Your task to perform on an android device: Go to settings Image 0: 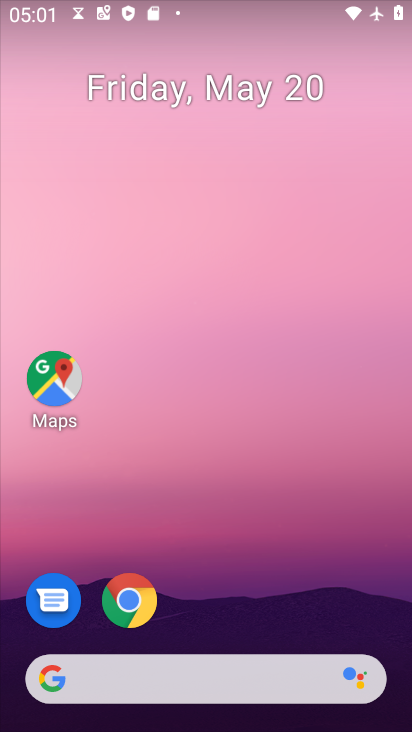
Step 0: drag from (221, 522) to (202, 56)
Your task to perform on an android device: Go to settings Image 1: 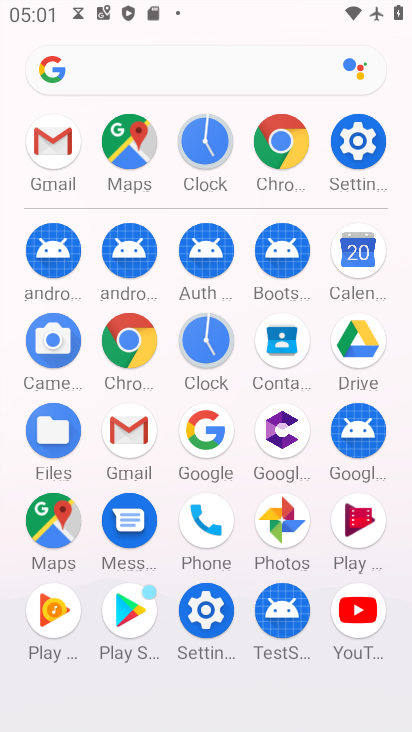
Step 1: drag from (7, 592) to (24, 233)
Your task to perform on an android device: Go to settings Image 2: 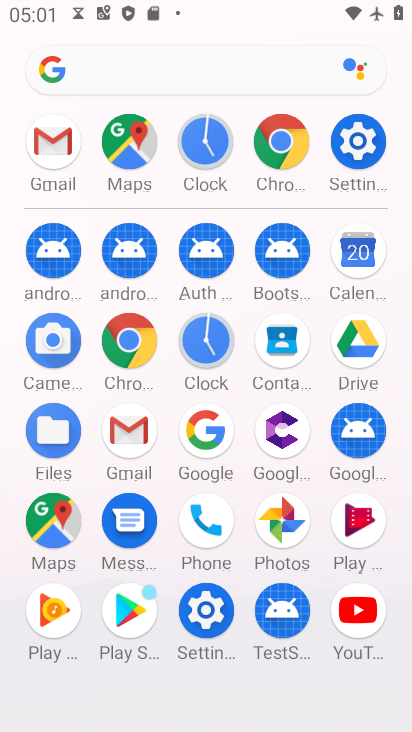
Step 2: click (201, 607)
Your task to perform on an android device: Go to settings Image 3: 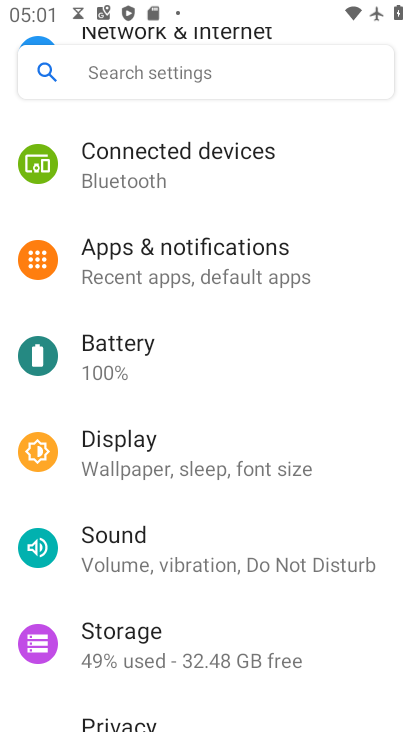
Step 3: task complete